Your task to perform on an android device: Open sound settings Image 0: 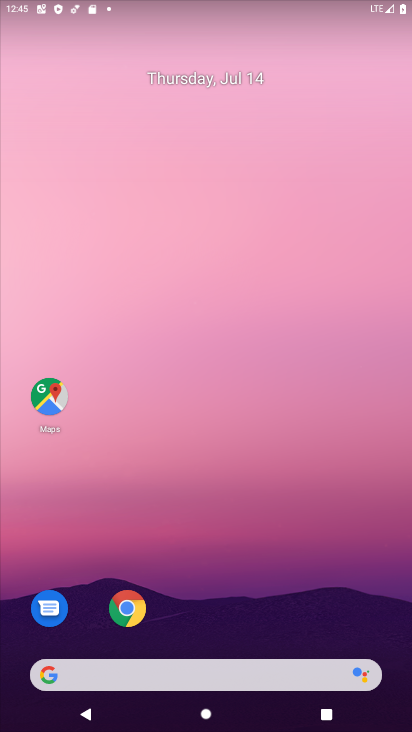
Step 0: drag from (32, 719) to (359, 185)
Your task to perform on an android device: Open sound settings Image 1: 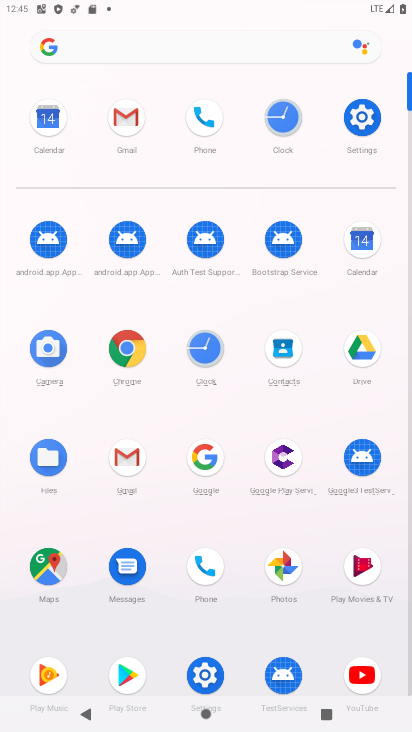
Step 1: click (340, 134)
Your task to perform on an android device: Open sound settings Image 2: 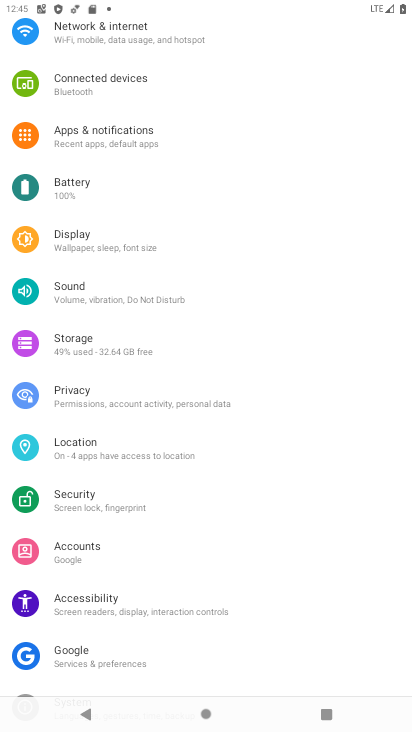
Step 2: click (111, 294)
Your task to perform on an android device: Open sound settings Image 3: 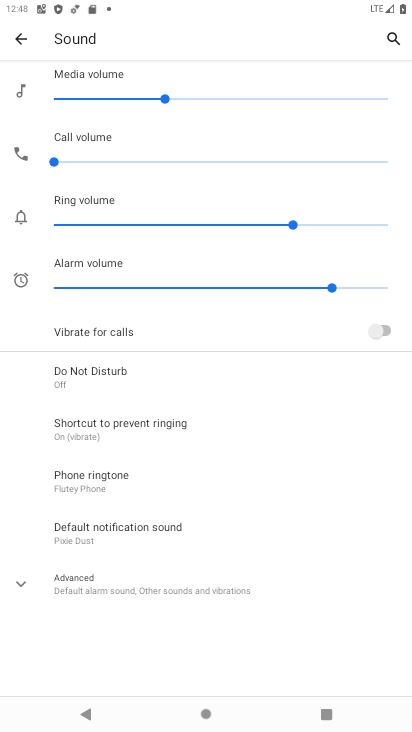
Step 3: task complete